Your task to perform on an android device: Open eBay Image 0: 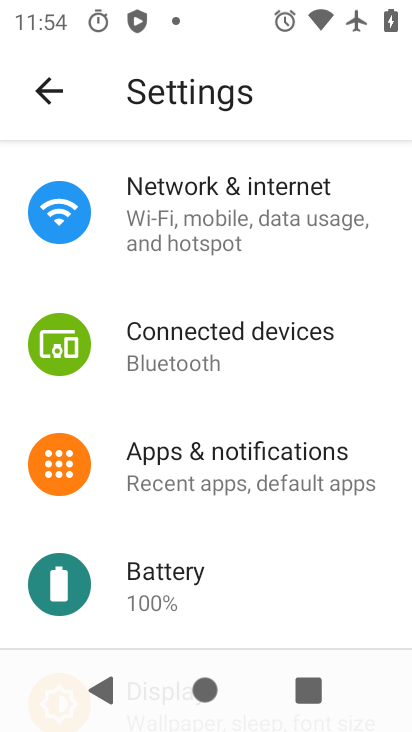
Step 0: press home button
Your task to perform on an android device: Open eBay Image 1: 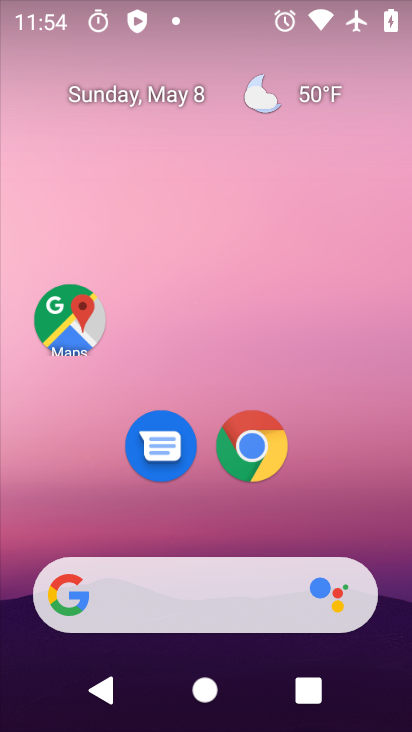
Step 1: click (266, 448)
Your task to perform on an android device: Open eBay Image 2: 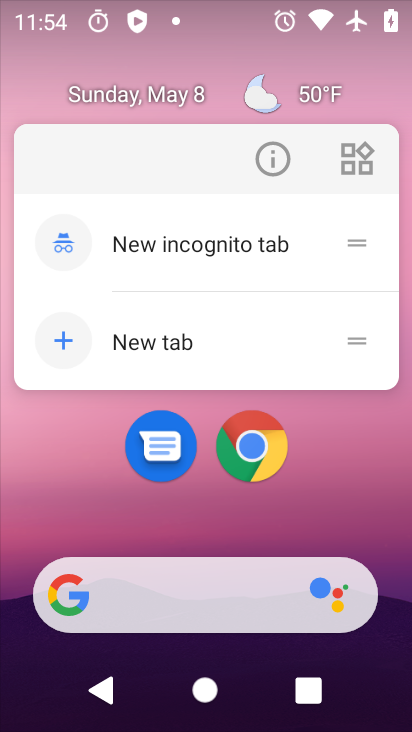
Step 2: click (246, 460)
Your task to perform on an android device: Open eBay Image 3: 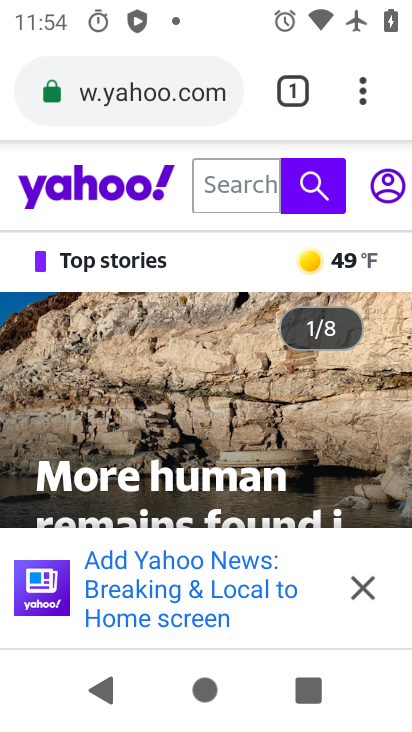
Step 3: click (171, 94)
Your task to perform on an android device: Open eBay Image 4: 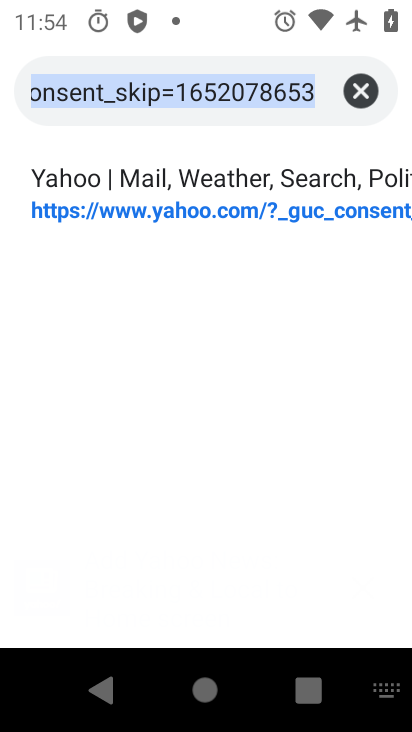
Step 4: type "ebay"
Your task to perform on an android device: Open eBay Image 5: 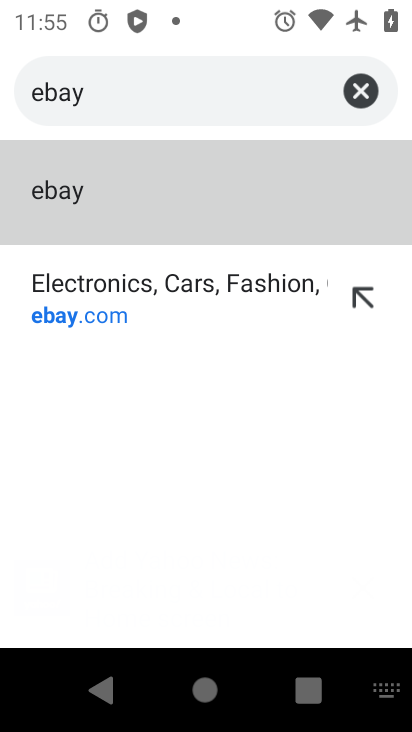
Step 5: click (64, 179)
Your task to perform on an android device: Open eBay Image 6: 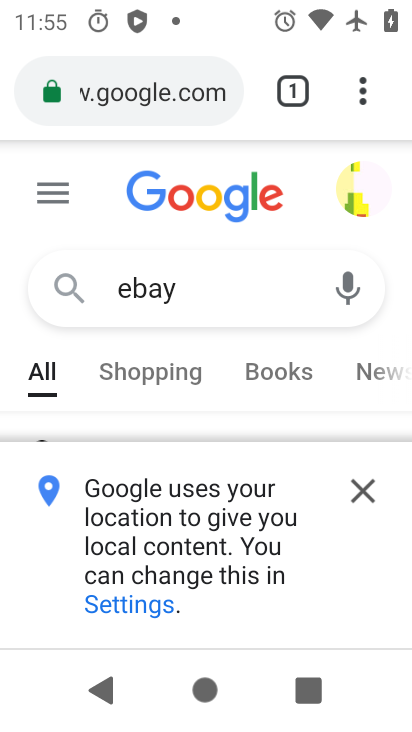
Step 6: click (369, 492)
Your task to perform on an android device: Open eBay Image 7: 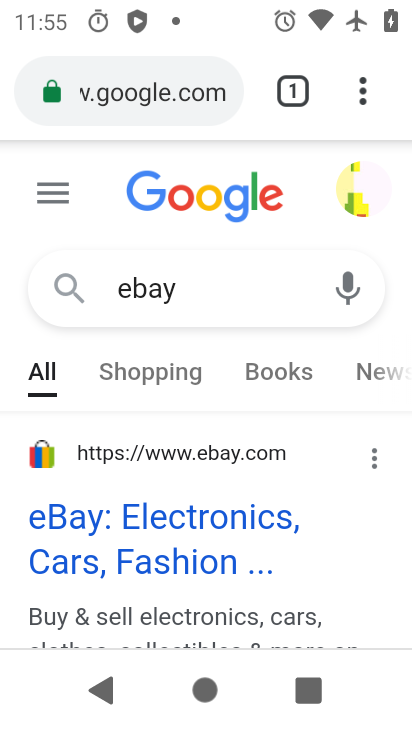
Step 7: task complete